Your task to perform on an android device: turn on javascript in the chrome app Image 0: 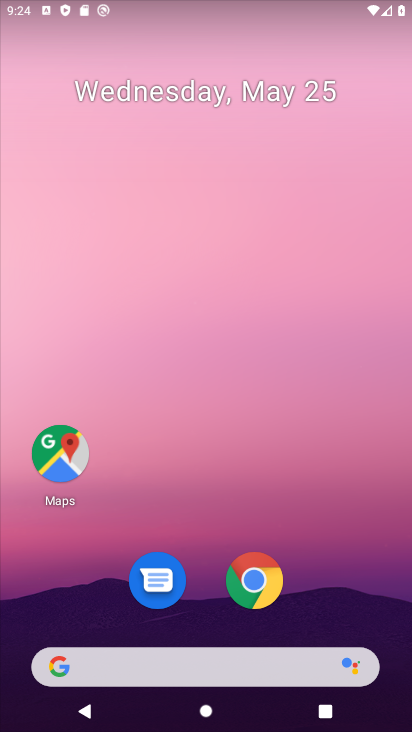
Step 0: press home button
Your task to perform on an android device: turn on javascript in the chrome app Image 1: 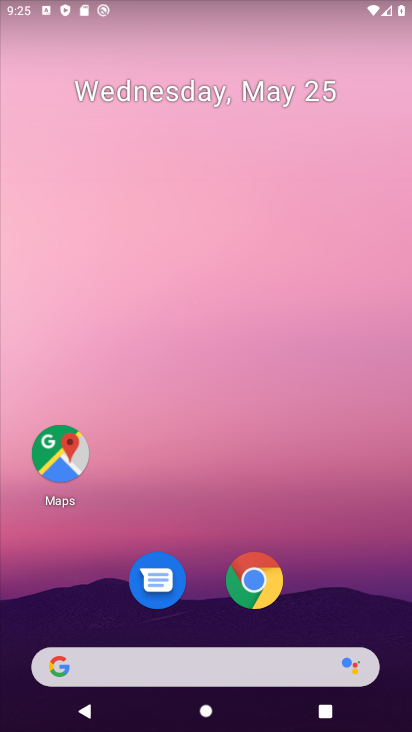
Step 1: click (249, 597)
Your task to perform on an android device: turn on javascript in the chrome app Image 2: 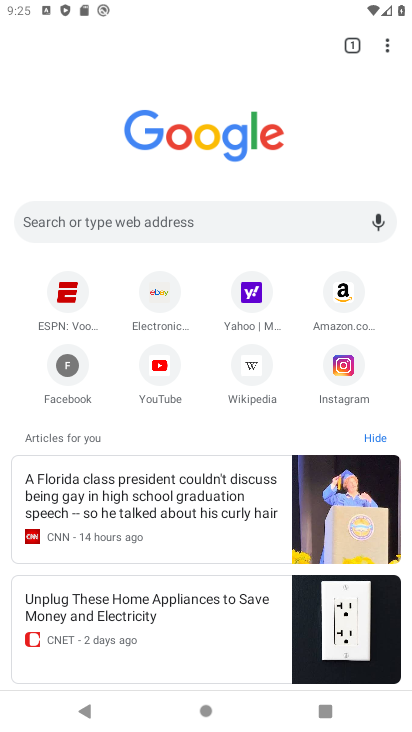
Step 2: click (388, 54)
Your task to perform on an android device: turn on javascript in the chrome app Image 3: 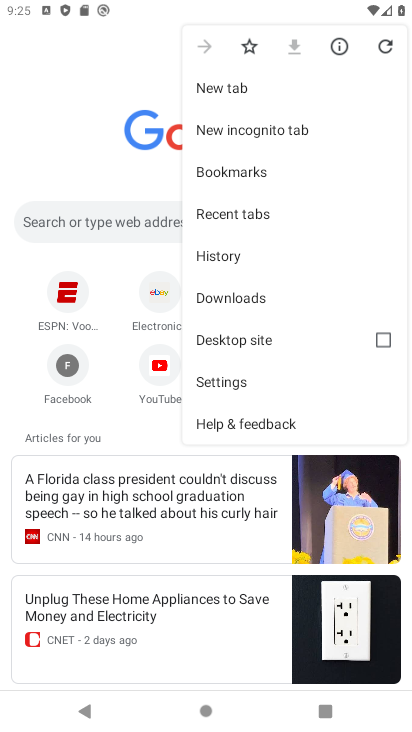
Step 3: click (226, 381)
Your task to perform on an android device: turn on javascript in the chrome app Image 4: 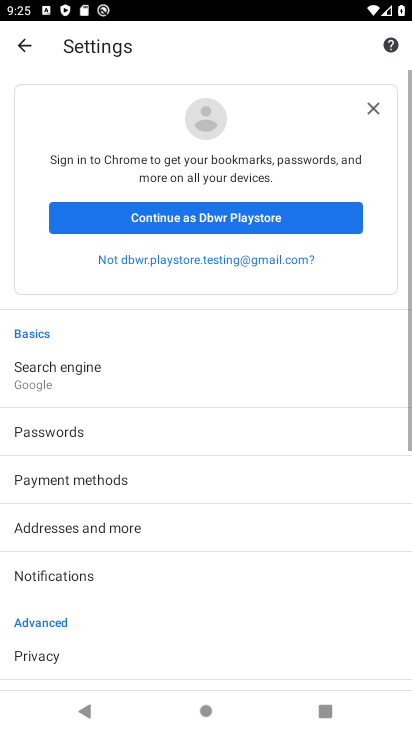
Step 4: drag from (19, 538) to (0, 632)
Your task to perform on an android device: turn on javascript in the chrome app Image 5: 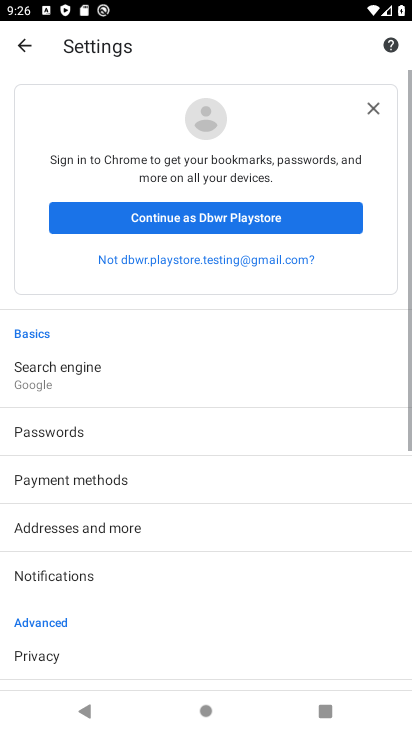
Step 5: click (36, 662)
Your task to perform on an android device: turn on javascript in the chrome app Image 6: 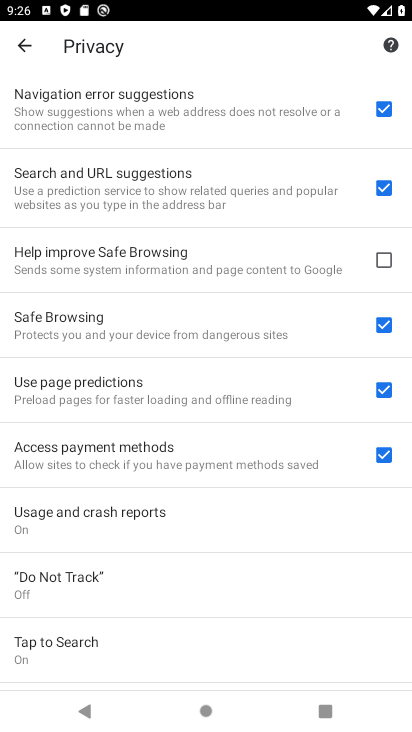
Step 6: press back button
Your task to perform on an android device: turn on javascript in the chrome app Image 7: 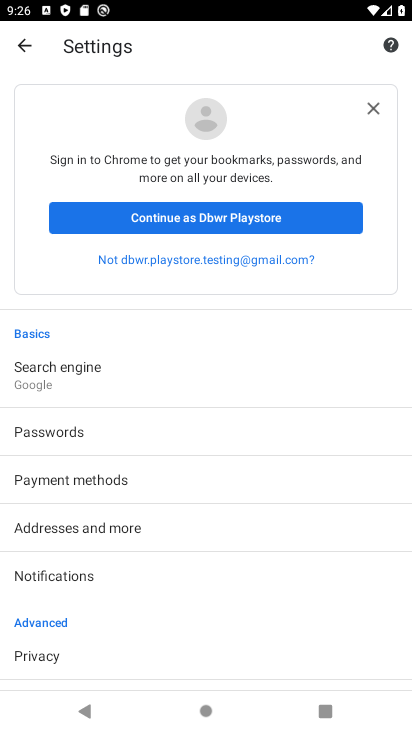
Step 7: drag from (7, 567) to (183, 229)
Your task to perform on an android device: turn on javascript in the chrome app Image 8: 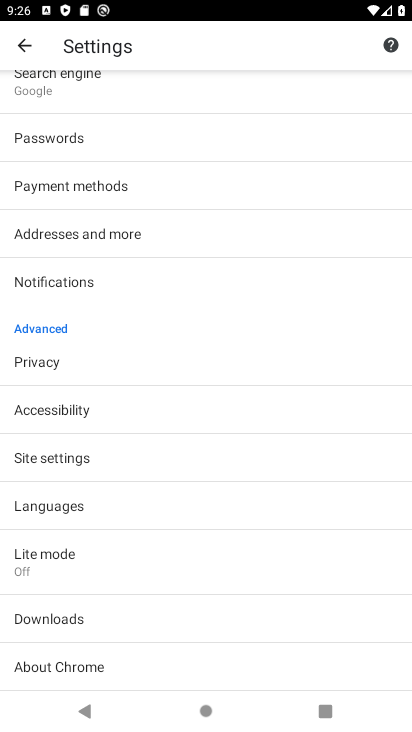
Step 8: click (46, 463)
Your task to perform on an android device: turn on javascript in the chrome app Image 9: 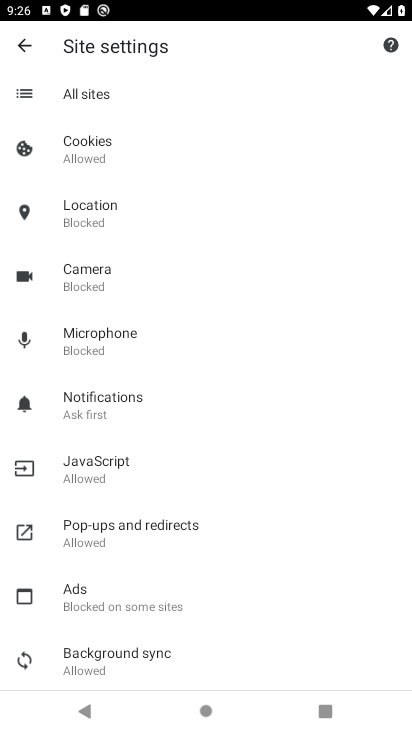
Step 9: click (115, 470)
Your task to perform on an android device: turn on javascript in the chrome app Image 10: 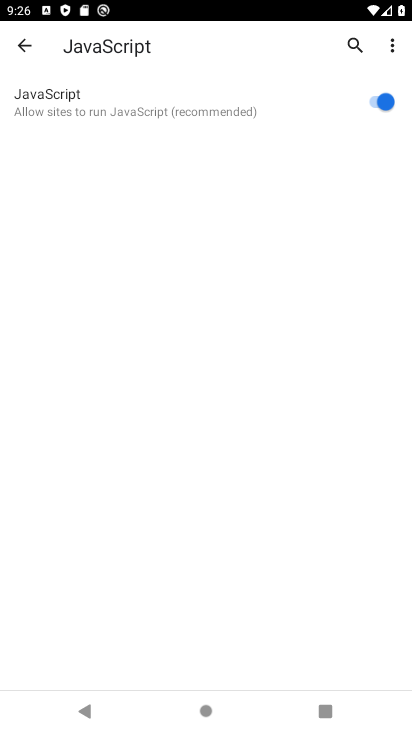
Step 10: task complete